Your task to perform on an android device: Open wifi settings Image 0: 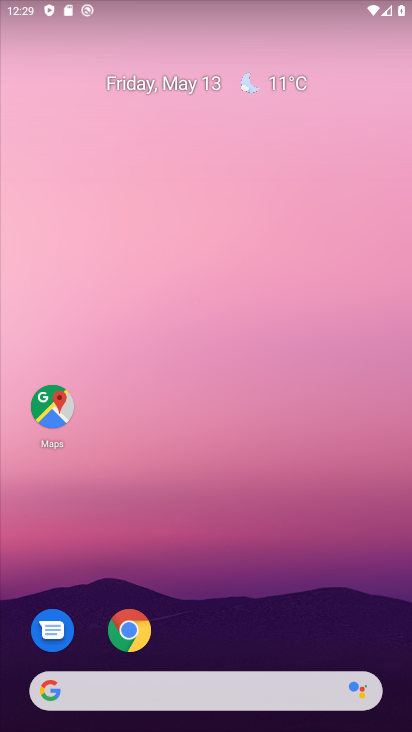
Step 0: drag from (384, 613) to (407, 93)
Your task to perform on an android device: Open wifi settings Image 1: 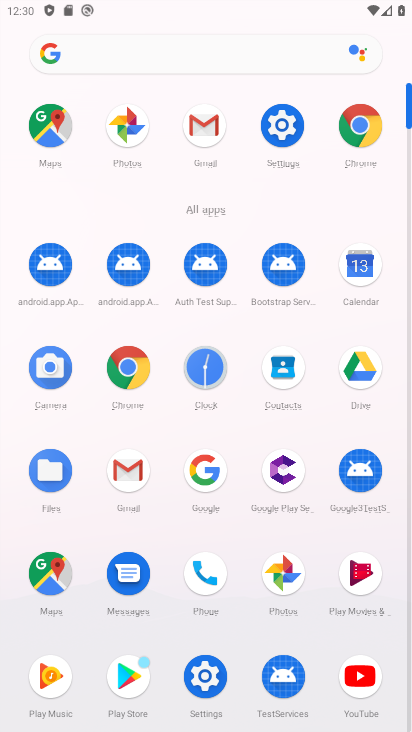
Step 1: click (285, 134)
Your task to perform on an android device: Open wifi settings Image 2: 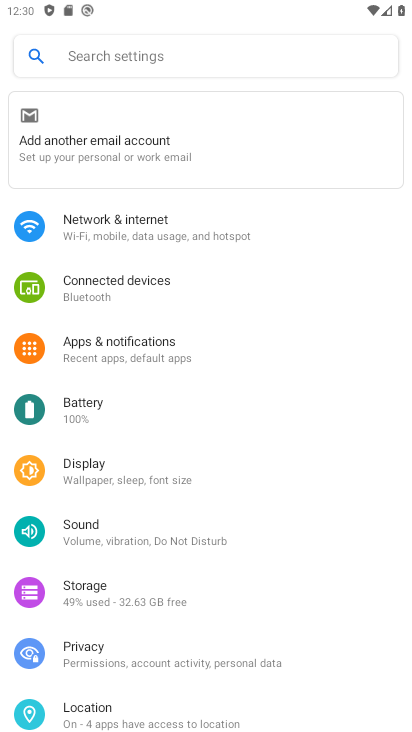
Step 2: click (132, 233)
Your task to perform on an android device: Open wifi settings Image 3: 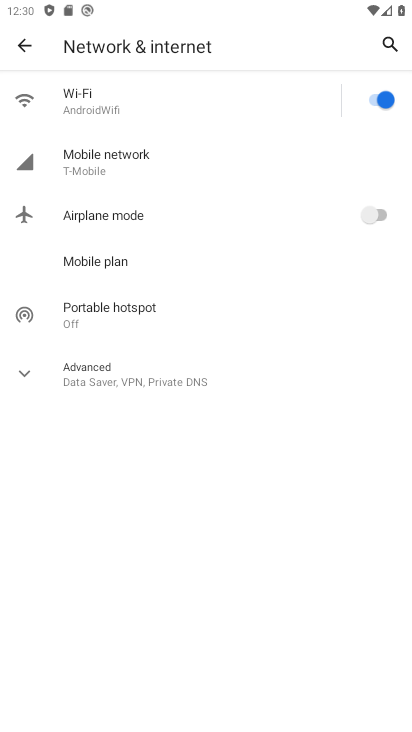
Step 3: click (66, 102)
Your task to perform on an android device: Open wifi settings Image 4: 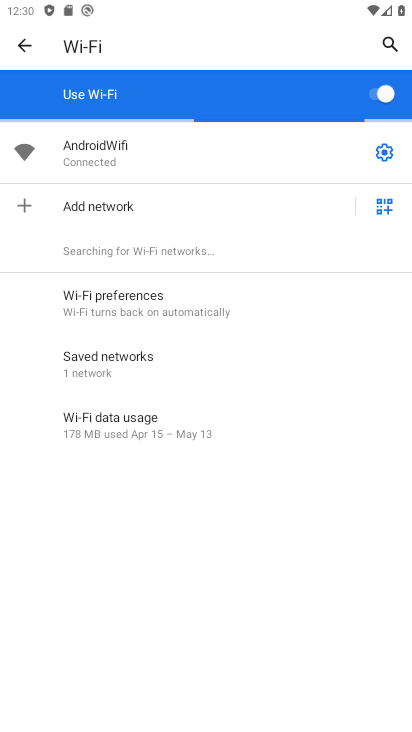
Step 4: task complete